Your task to perform on an android device: Open sound settings Image 0: 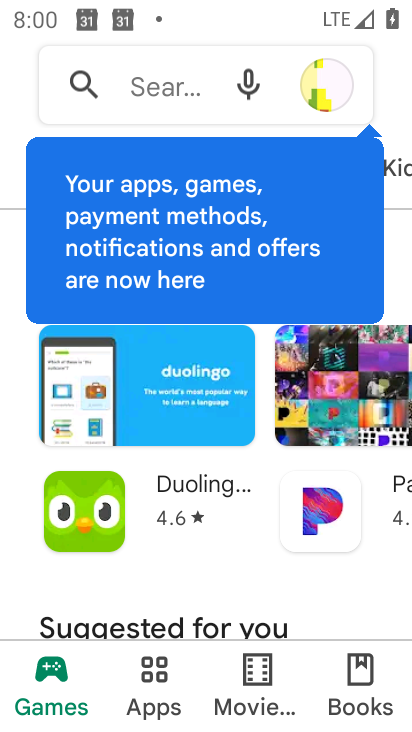
Step 0: press home button
Your task to perform on an android device: Open sound settings Image 1: 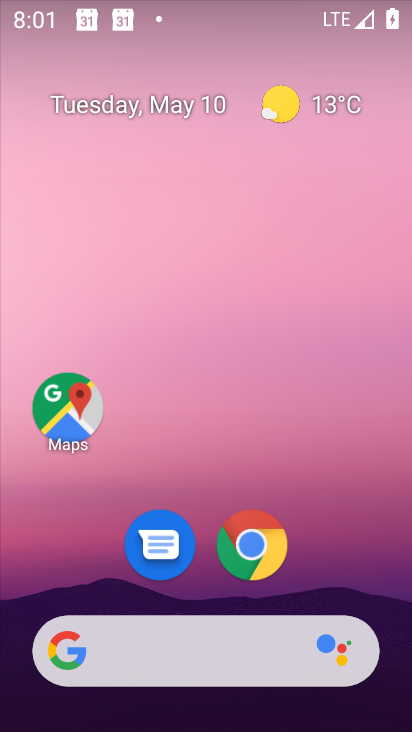
Step 1: drag from (205, 594) to (296, 56)
Your task to perform on an android device: Open sound settings Image 2: 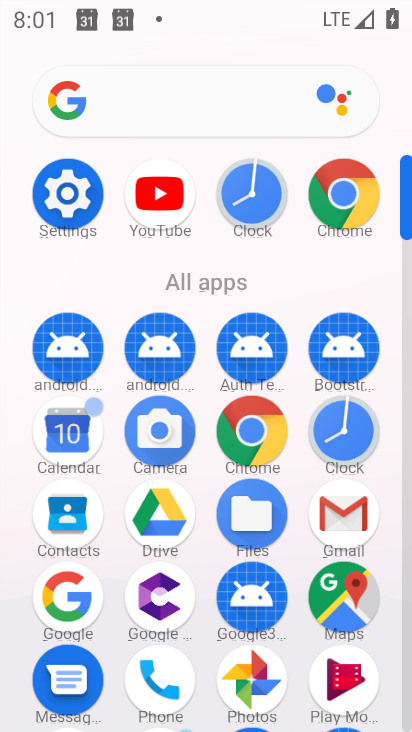
Step 2: click (67, 185)
Your task to perform on an android device: Open sound settings Image 3: 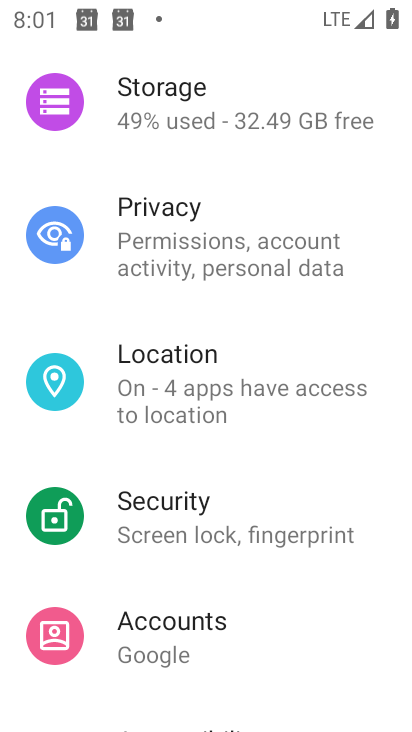
Step 3: drag from (185, 186) to (205, 676)
Your task to perform on an android device: Open sound settings Image 4: 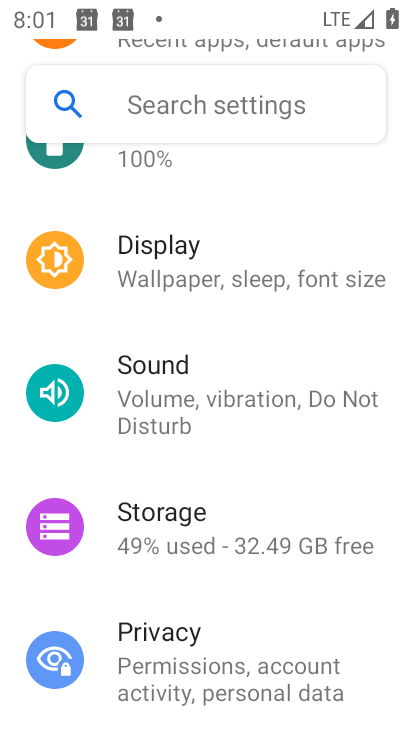
Step 4: click (96, 386)
Your task to perform on an android device: Open sound settings Image 5: 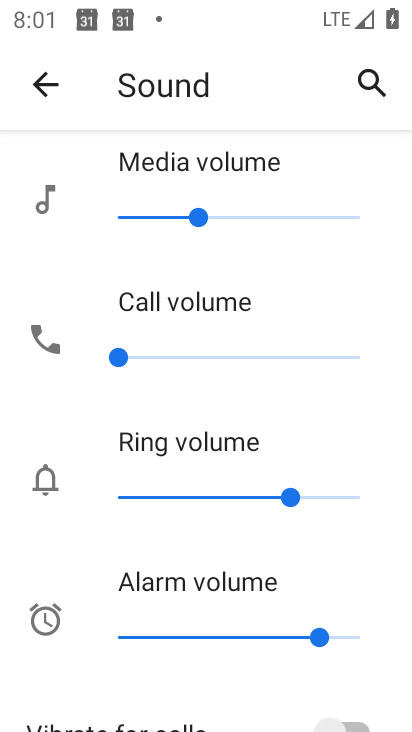
Step 5: drag from (201, 531) to (232, 144)
Your task to perform on an android device: Open sound settings Image 6: 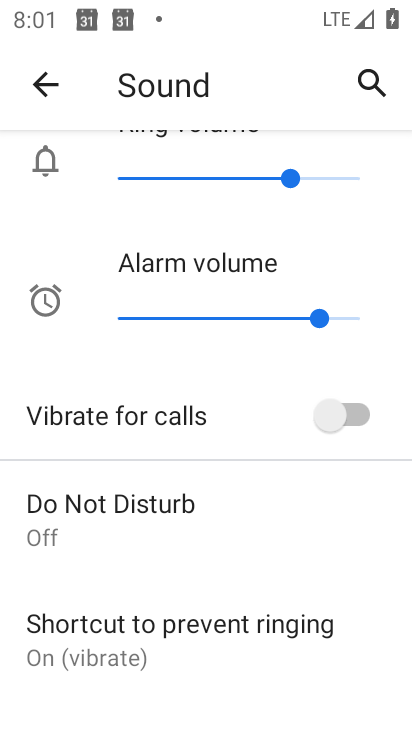
Step 6: drag from (188, 601) to (240, 235)
Your task to perform on an android device: Open sound settings Image 7: 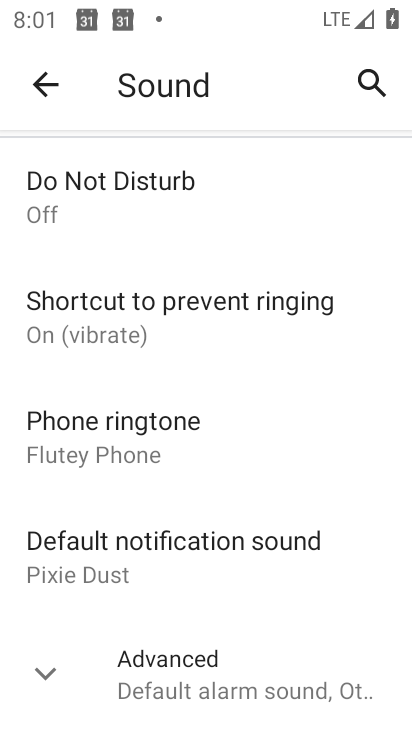
Step 7: click (42, 670)
Your task to perform on an android device: Open sound settings Image 8: 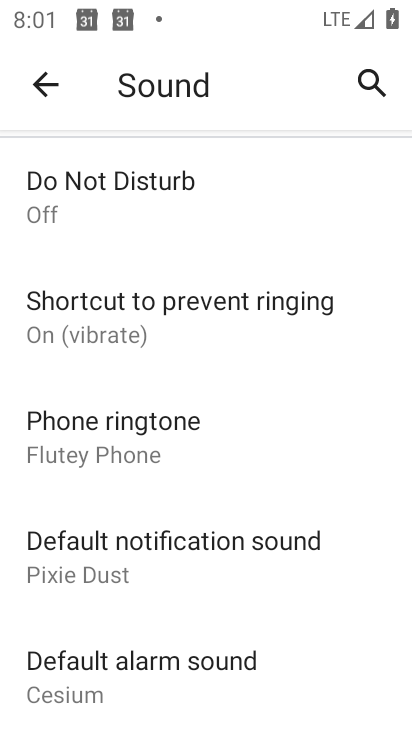
Step 8: task complete